Your task to perform on an android device: Go to network settings Image 0: 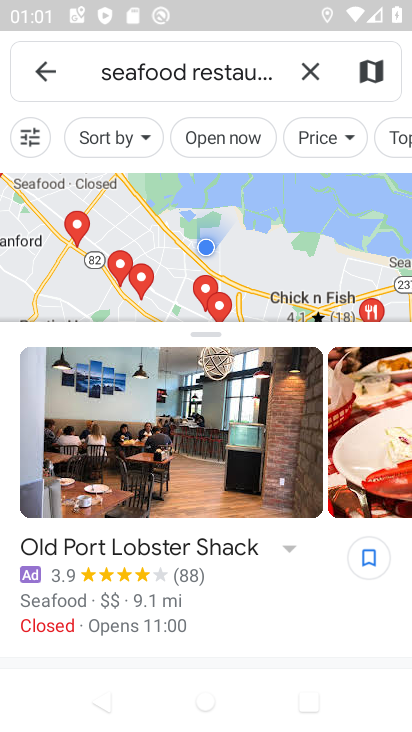
Step 0: press home button
Your task to perform on an android device: Go to network settings Image 1: 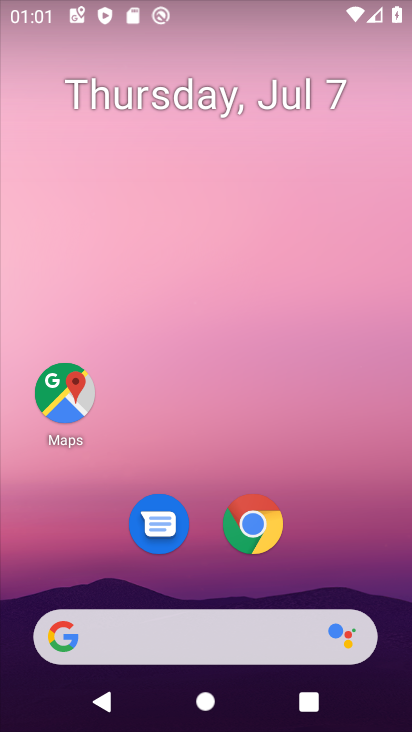
Step 1: drag from (263, 418) to (266, 35)
Your task to perform on an android device: Go to network settings Image 2: 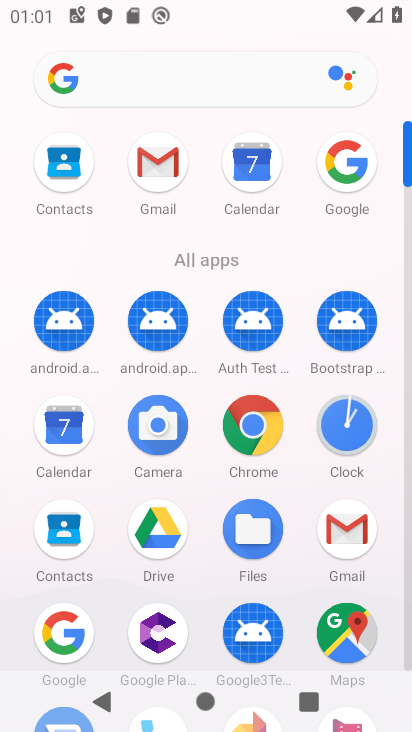
Step 2: drag from (203, 565) to (247, 295)
Your task to perform on an android device: Go to network settings Image 3: 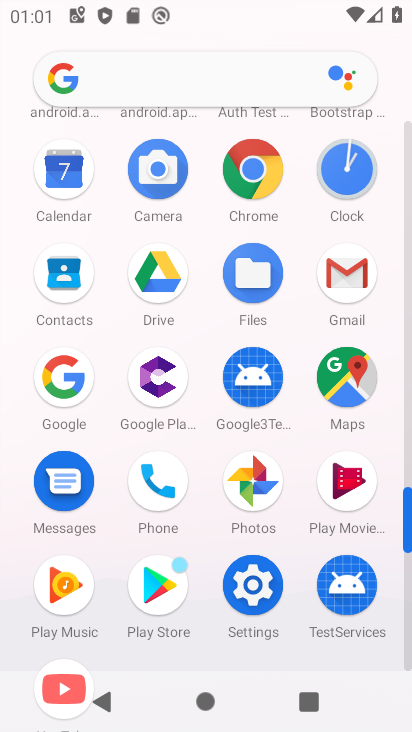
Step 3: click (262, 589)
Your task to perform on an android device: Go to network settings Image 4: 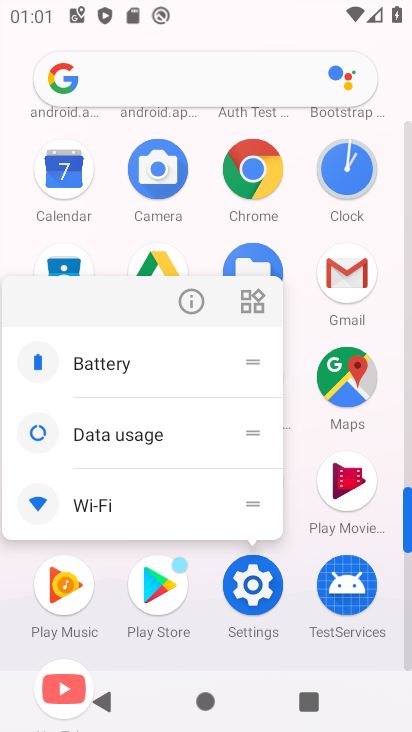
Step 4: click (256, 564)
Your task to perform on an android device: Go to network settings Image 5: 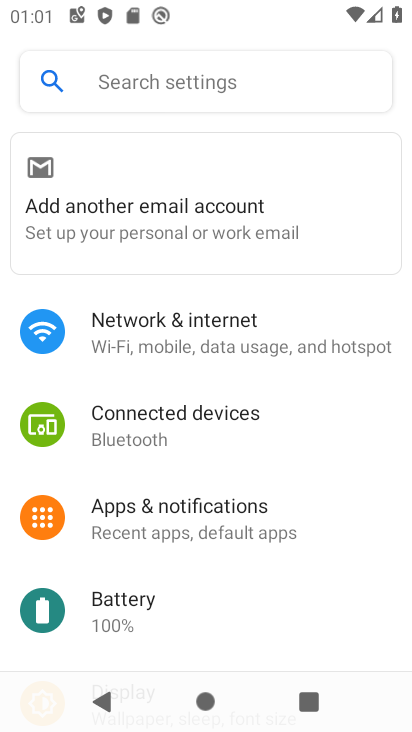
Step 5: click (190, 321)
Your task to perform on an android device: Go to network settings Image 6: 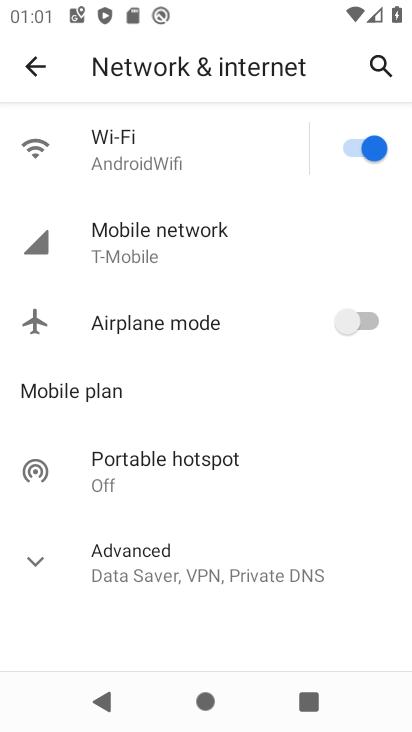
Step 6: task complete